Your task to perform on an android device: uninstall "Adobe Acrobat Reader" Image 0: 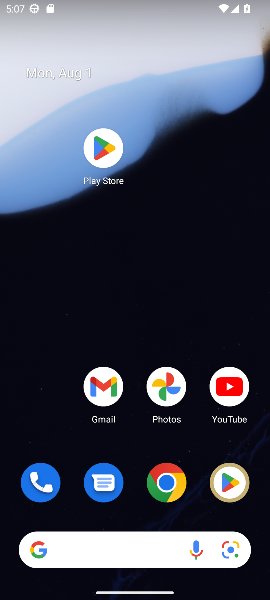
Step 0: press home button
Your task to perform on an android device: uninstall "Adobe Acrobat Reader" Image 1: 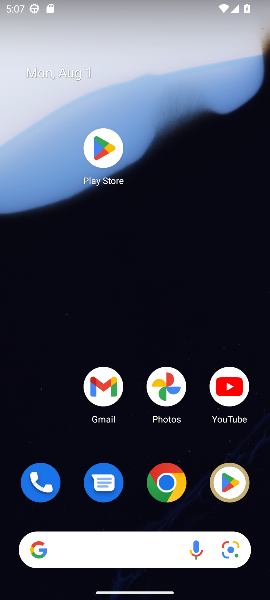
Step 1: click (106, 153)
Your task to perform on an android device: uninstall "Adobe Acrobat Reader" Image 2: 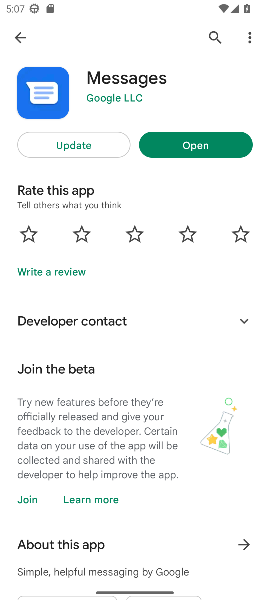
Step 2: click (208, 31)
Your task to perform on an android device: uninstall "Adobe Acrobat Reader" Image 3: 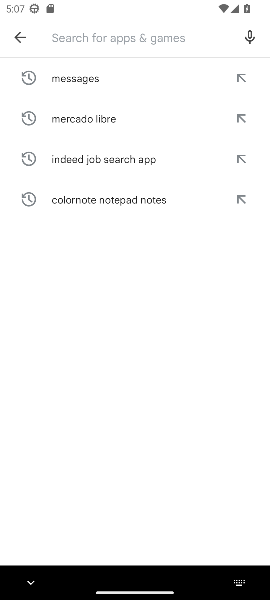
Step 3: type "Adobe Acrobat Reader"
Your task to perform on an android device: uninstall "Adobe Acrobat Reader" Image 4: 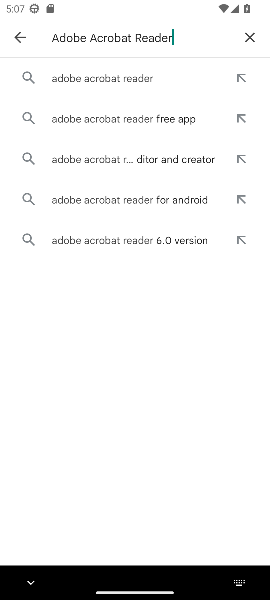
Step 4: click (92, 70)
Your task to perform on an android device: uninstall "Adobe Acrobat Reader" Image 5: 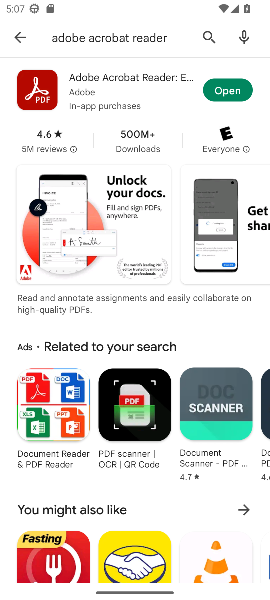
Step 5: click (47, 89)
Your task to perform on an android device: uninstall "Adobe Acrobat Reader" Image 6: 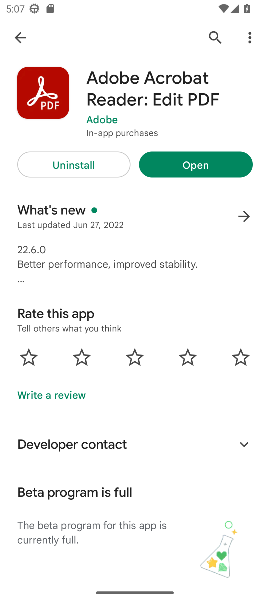
Step 6: click (98, 160)
Your task to perform on an android device: uninstall "Adobe Acrobat Reader" Image 7: 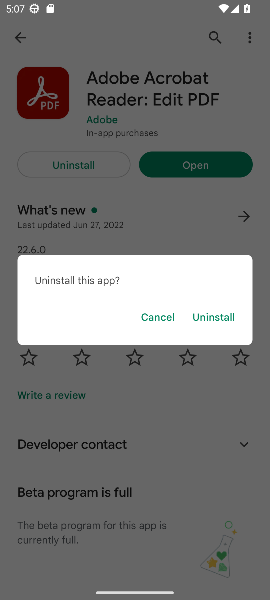
Step 7: click (207, 317)
Your task to perform on an android device: uninstall "Adobe Acrobat Reader" Image 8: 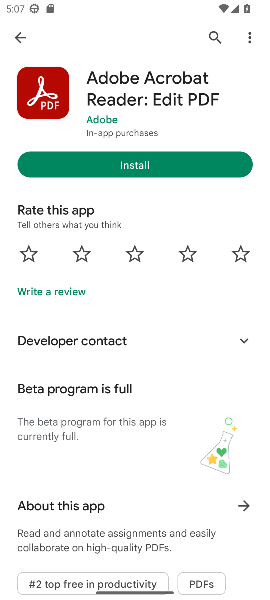
Step 8: task complete